Your task to perform on an android device: Go to wifi settings Image 0: 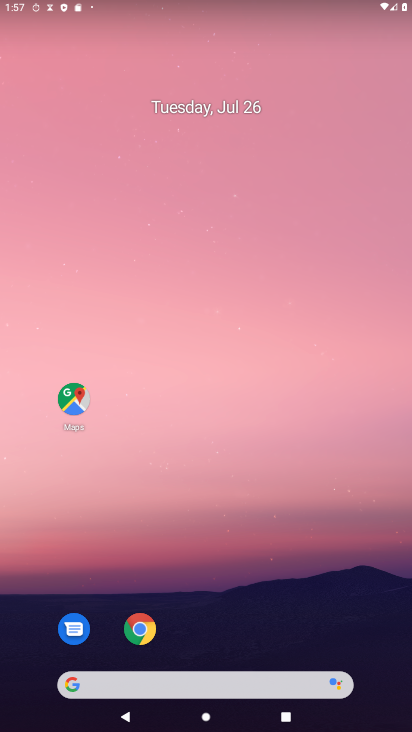
Step 0: drag from (321, 684) to (412, 398)
Your task to perform on an android device: Go to wifi settings Image 1: 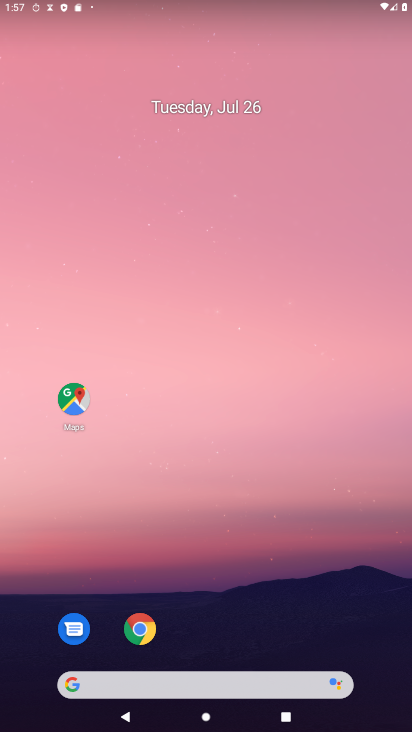
Step 1: drag from (228, 677) to (264, 131)
Your task to perform on an android device: Go to wifi settings Image 2: 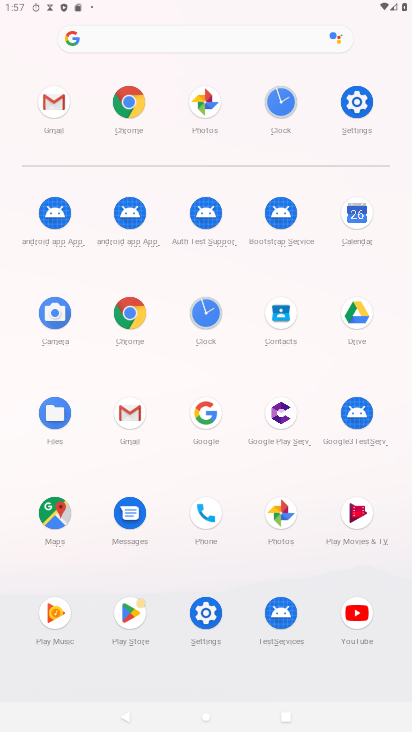
Step 2: click (367, 96)
Your task to perform on an android device: Go to wifi settings Image 3: 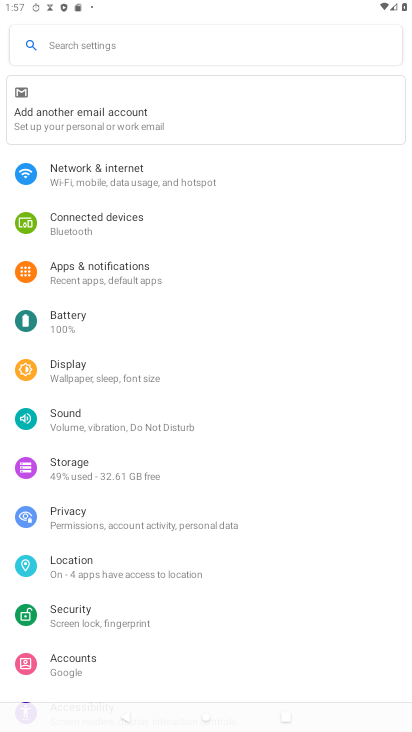
Step 3: click (160, 169)
Your task to perform on an android device: Go to wifi settings Image 4: 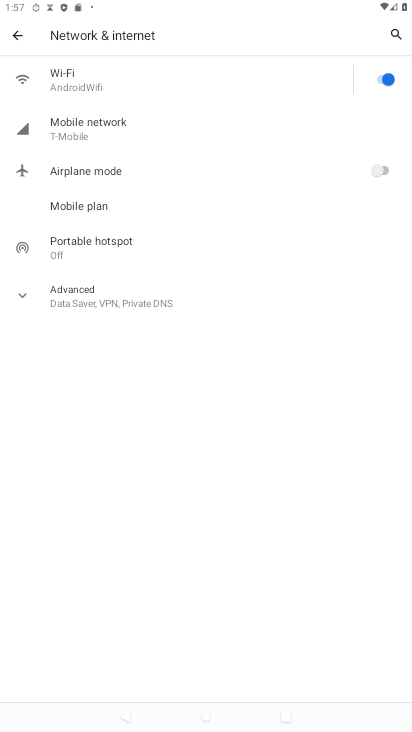
Step 4: click (142, 84)
Your task to perform on an android device: Go to wifi settings Image 5: 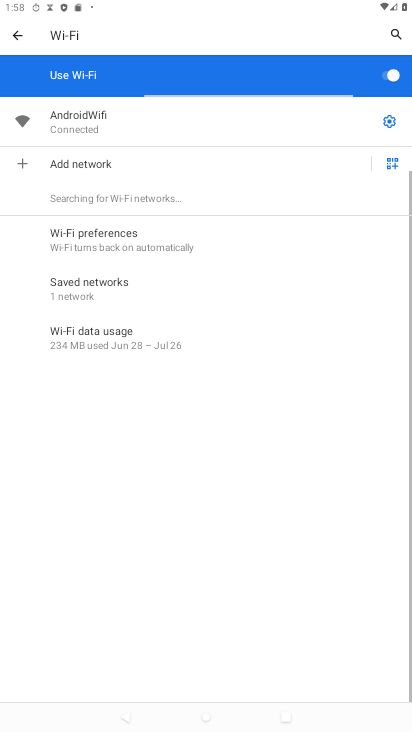
Step 5: task complete